Your task to perform on an android device: move a message to another label in the gmail app Image 0: 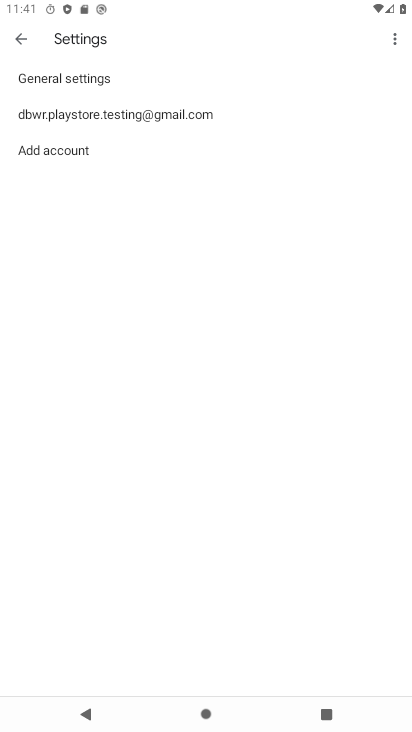
Step 0: press back button
Your task to perform on an android device: move a message to another label in the gmail app Image 1: 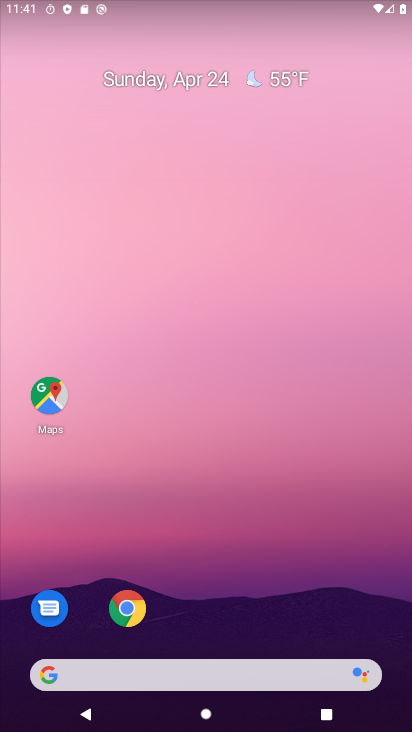
Step 1: drag from (176, 497) to (273, 92)
Your task to perform on an android device: move a message to another label in the gmail app Image 2: 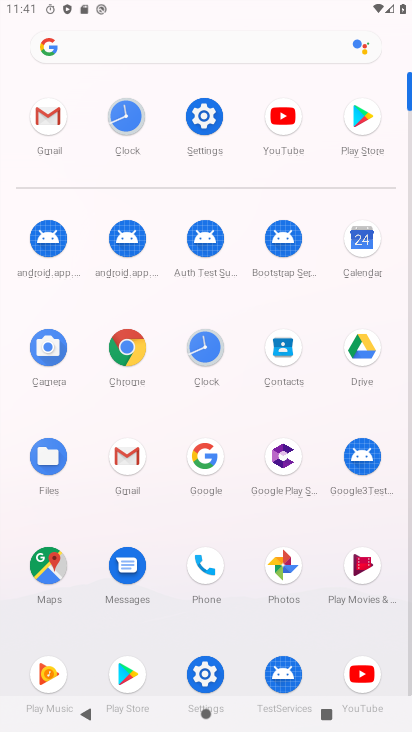
Step 2: click (47, 107)
Your task to perform on an android device: move a message to another label in the gmail app Image 3: 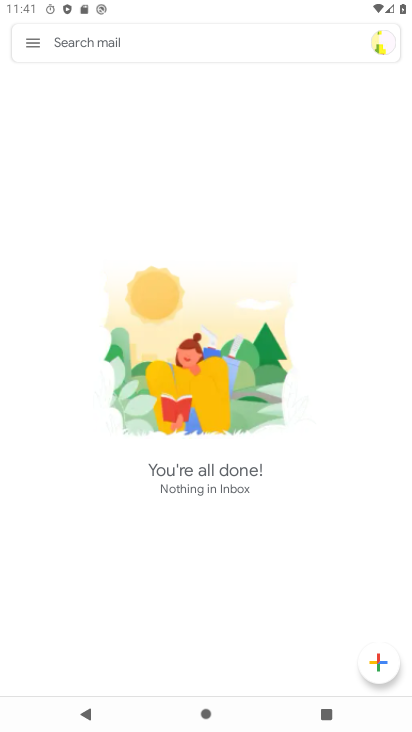
Step 3: click (29, 44)
Your task to perform on an android device: move a message to another label in the gmail app Image 4: 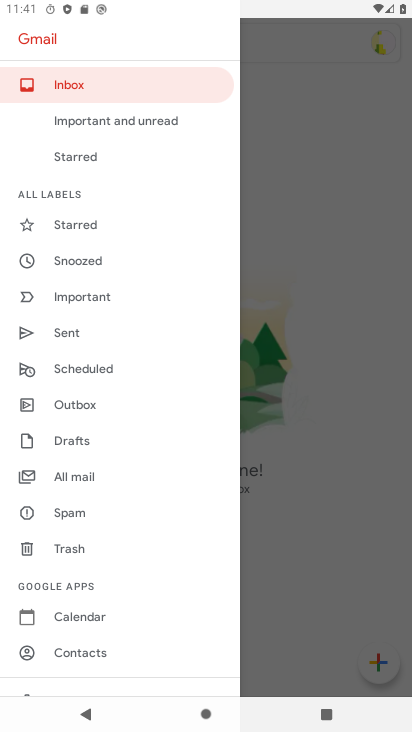
Step 4: click (90, 478)
Your task to perform on an android device: move a message to another label in the gmail app Image 5: 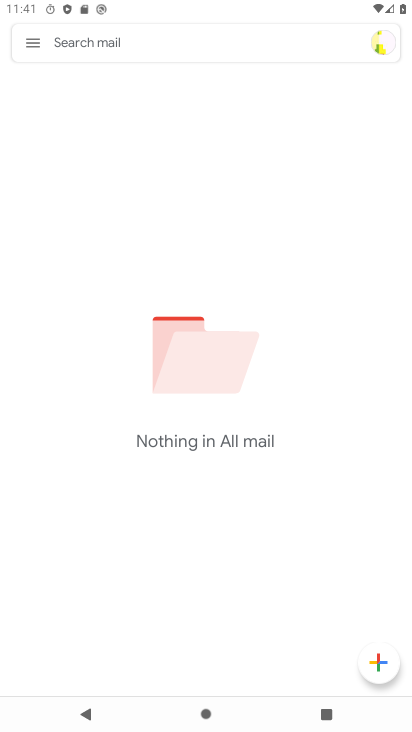
Step 5: task complete